Your task to perform on an android device: Open Youtube and go to "Your channel" Image 0: 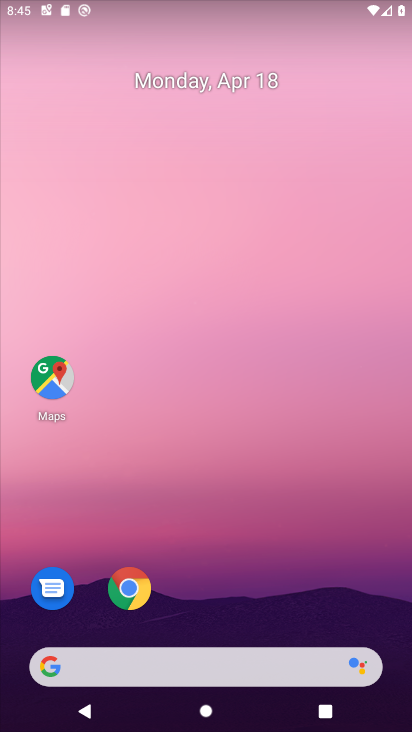
Step 0: drag from (249, 578) to (293, 135)
Your task to perform on an android device: Open Youtube and go to "Your channel" Image 1: 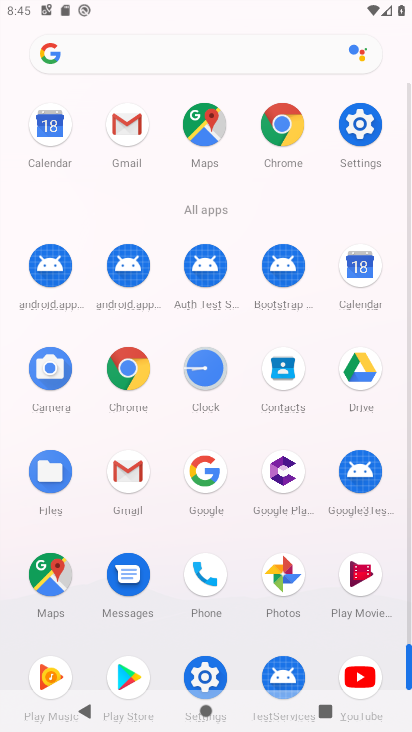
Step 1: click (358, 664)
Your task to perform on an android device: Open Youtube and go to "Your channel" Image 2: 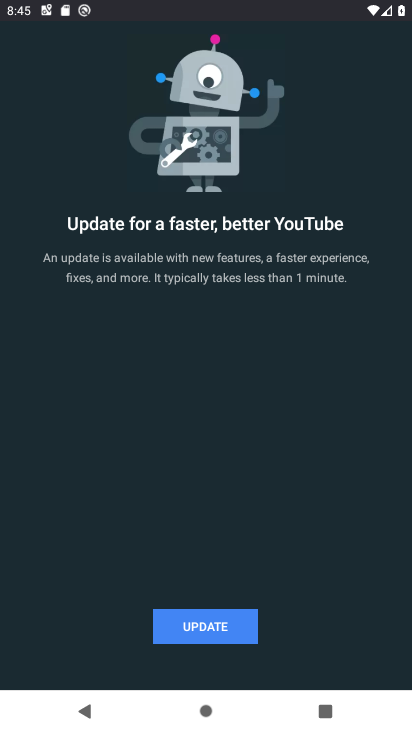
Step 2: click (180, 623)
Your task to perform on an android device: Open Youtube and go to "Your channel" Image 3: 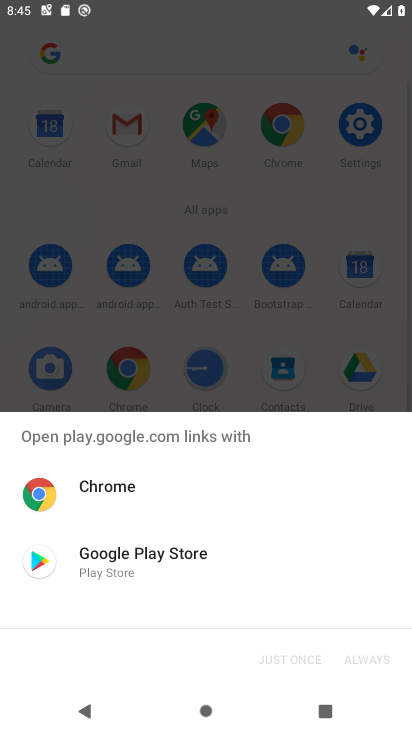
Step 3: click (186, 546)
Your task to perform on an android device: Open Youtube and go to "Your channel" Image 4: 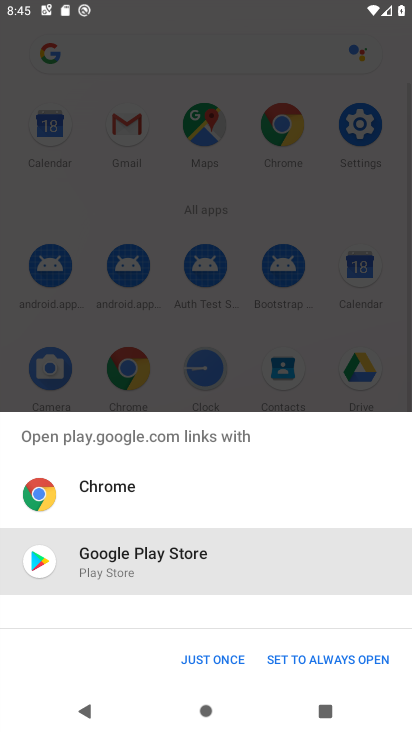
Step 4: click (262, 666)
Your task to perform on an android device: Open Youtube and go to "Your channel" Image 5: 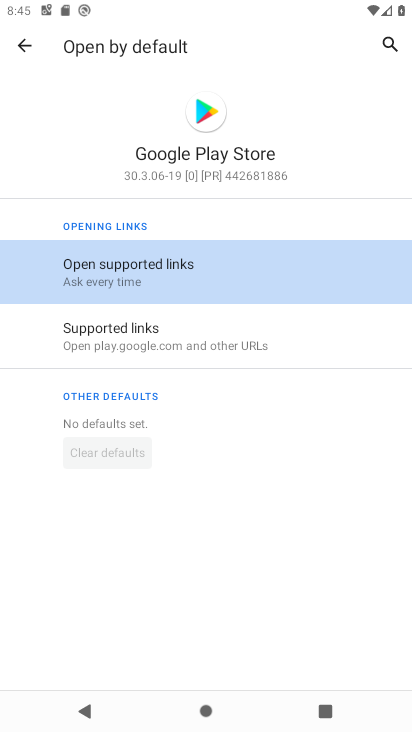
Step 5: press back button
Your task to perform on an android device: Open Youtube and go to "Your channel" Image 6: 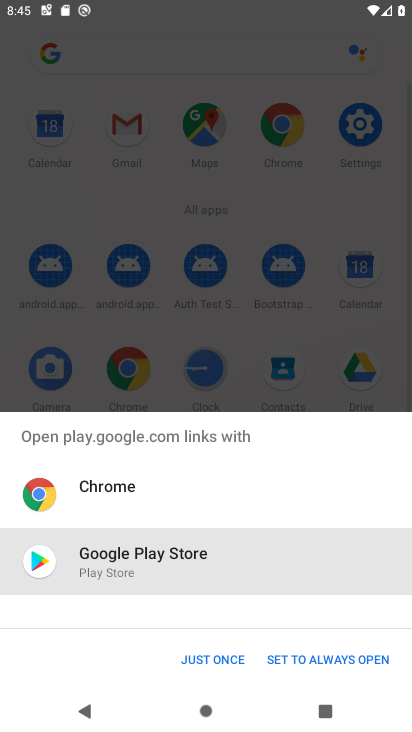
Step 6: click (198, 658)
Your task to perform on an android device: Open Youtube and go to "Your channel" Image 7: 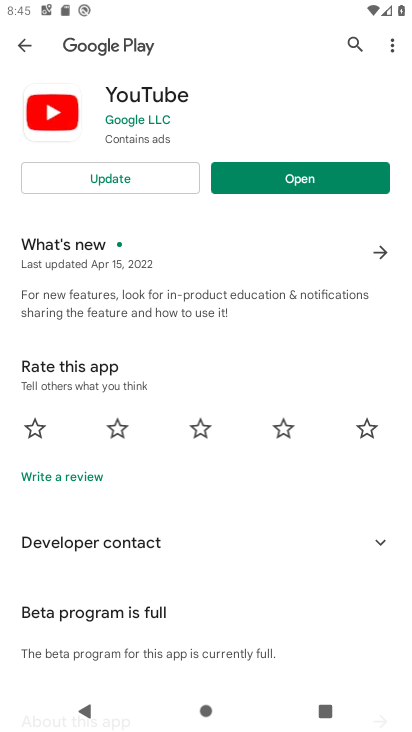
Step 7: click (122, 193)
Your task to perform on an android device: Open Youtube and go to "Your channel" Image 8: 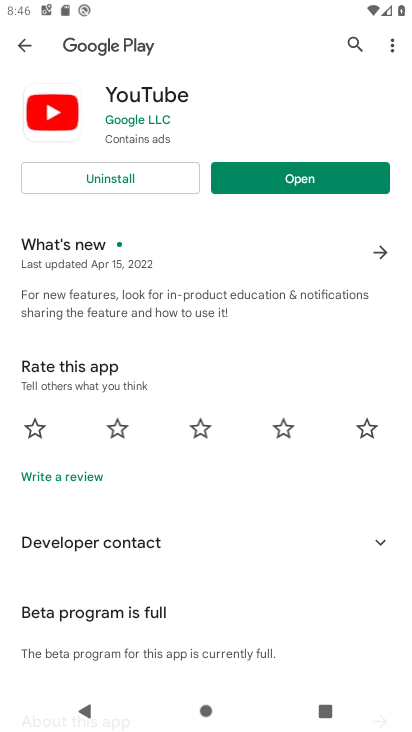
Step 8: click (297, 178)
Your task to perform on an android device: Open Youtube and go to "Your channel" Image 9: 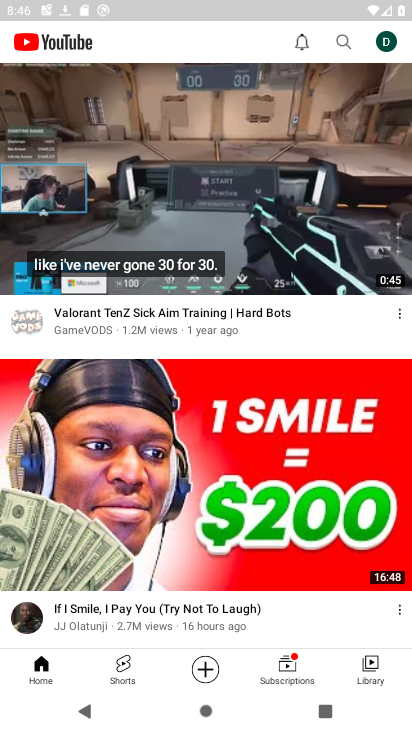
Step 9: click (362, 665)
Your task to perform on an android device: Open Youtube and go to "Your channel" Image 10: 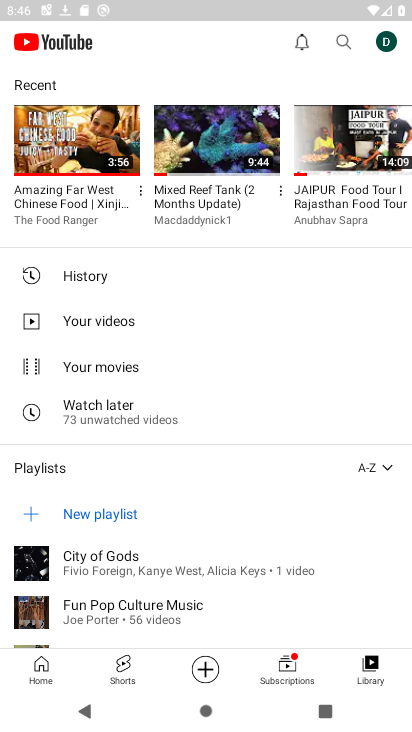
Step 10: click (386, 43)
Your task to perform on an android device: Open Youtube and go to "Your channel" Image 11: 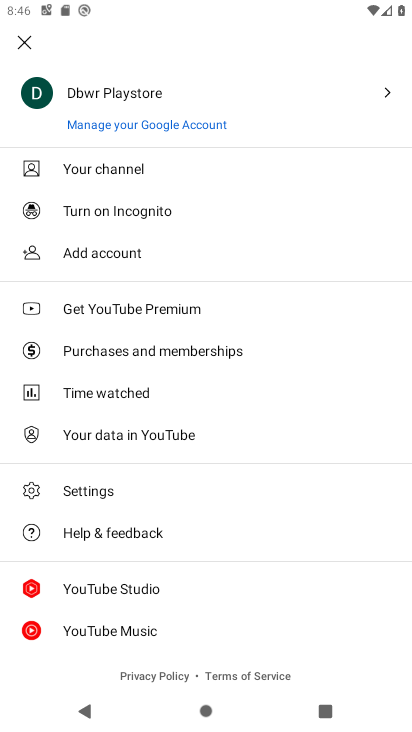
Step 11: click (110, 173)
Your task to perform on an android device: Open Youtube and go to "Your channel" Image 12: 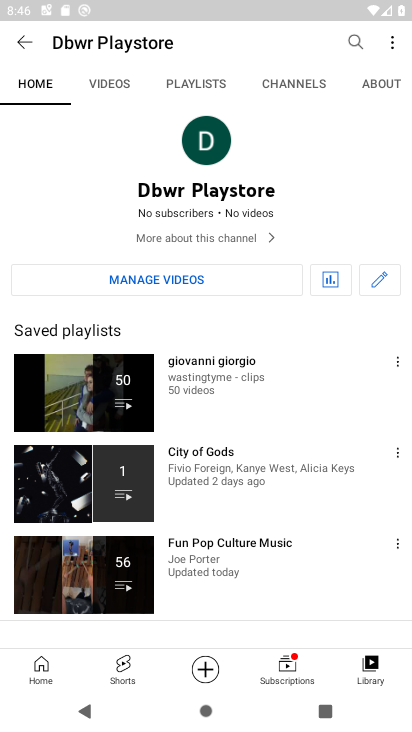
Step 12: task complete